Your task to perform on an android device: Search for the best selling books Image 0: 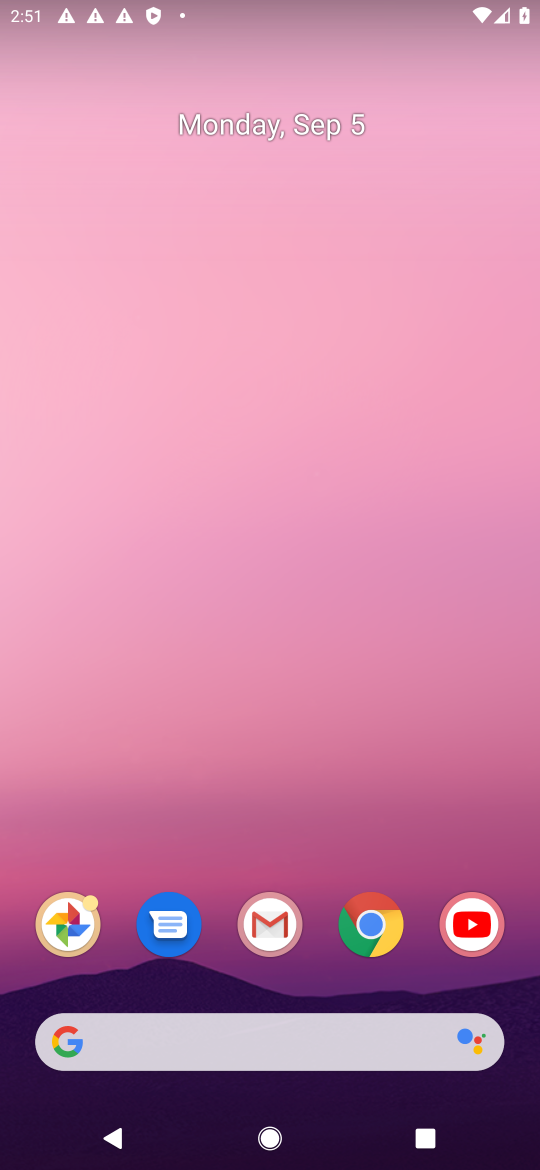
Step 0: click (491, 167)
Your task to perform on an android device: Search for the best selling books Image 1: 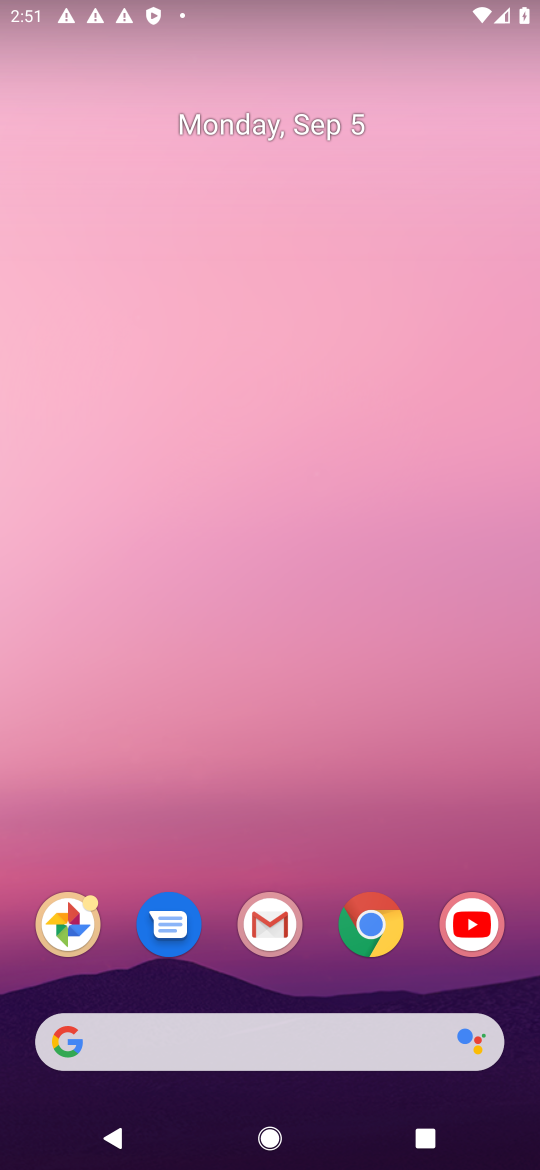
Step 1: click (366, 950)
Your task to perform on an android device: Search for the best selling books Image 2: 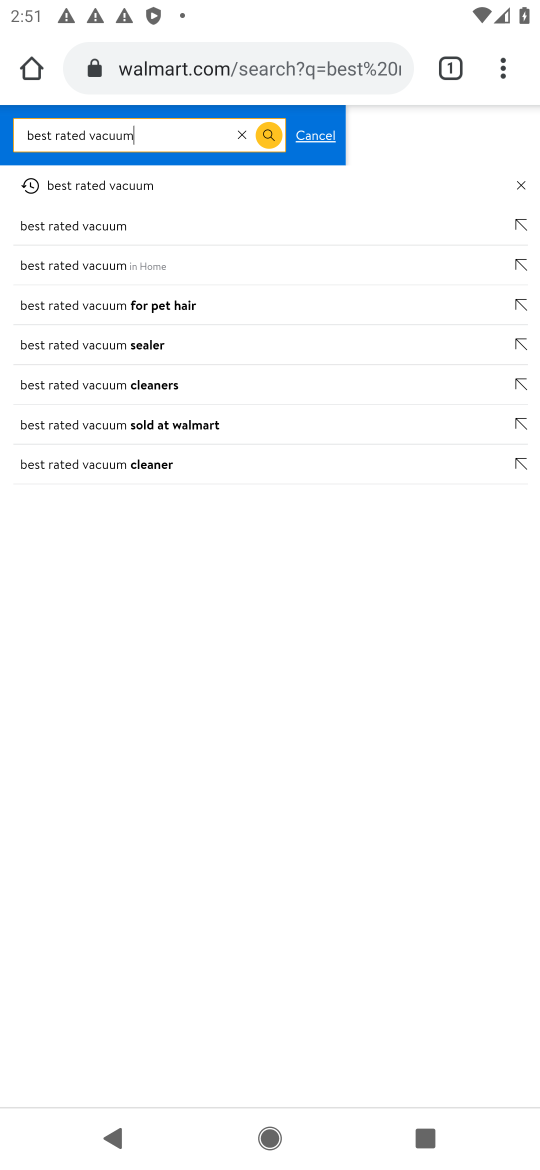
Step 2: click (247, 72)
Your task to perform on an android device: Search for the best selling books Image 3: 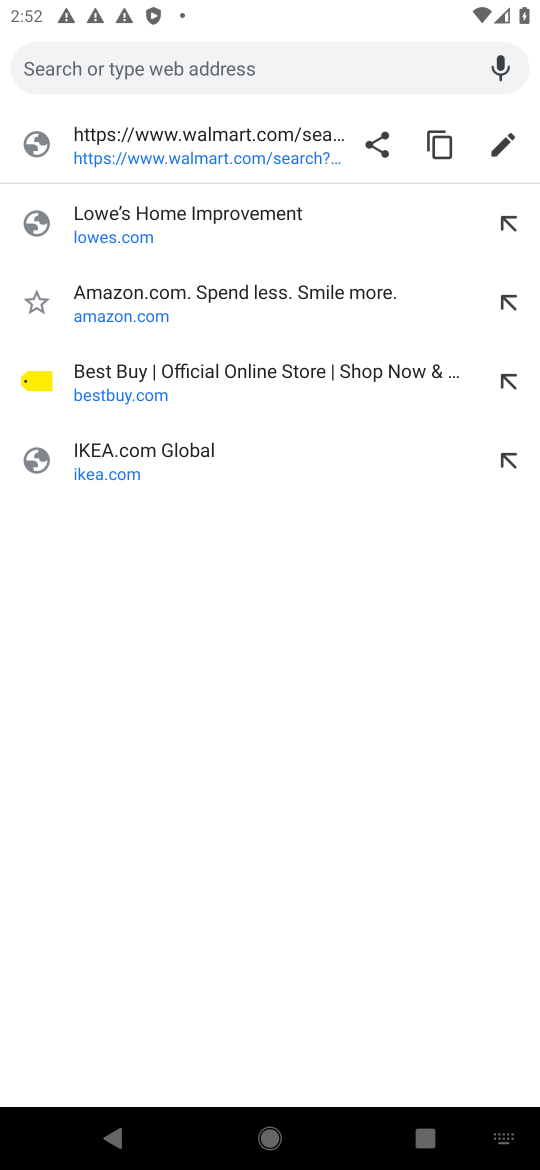
Step 3: type "best selling books"
Your task to perform on an android device: Search for the best selling books Image 4: 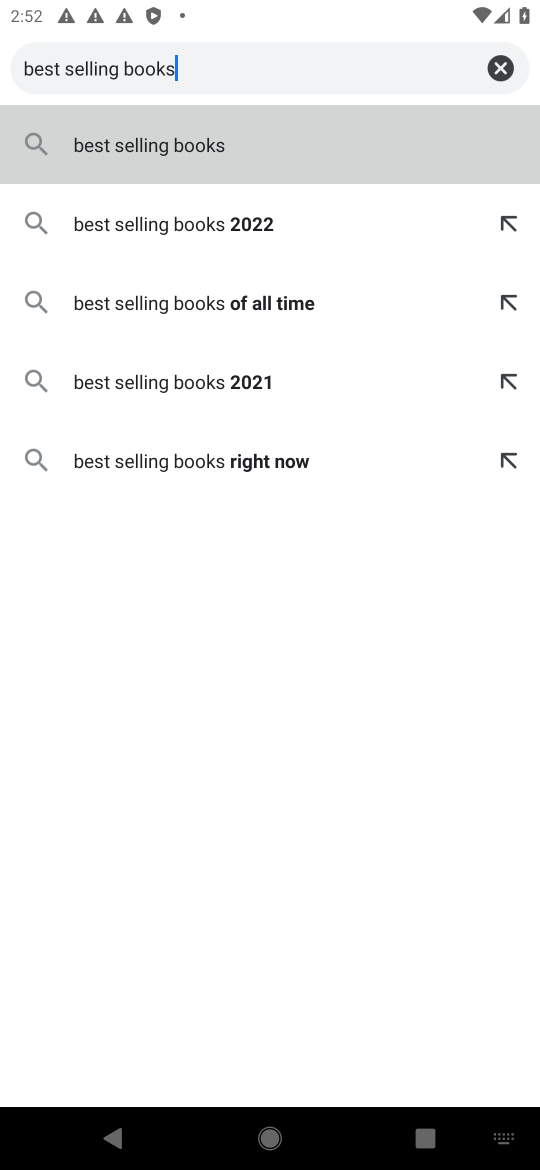
Step 4: click (328, 146)
Your task to perform on an android device: Search for the best selling books Image 5: 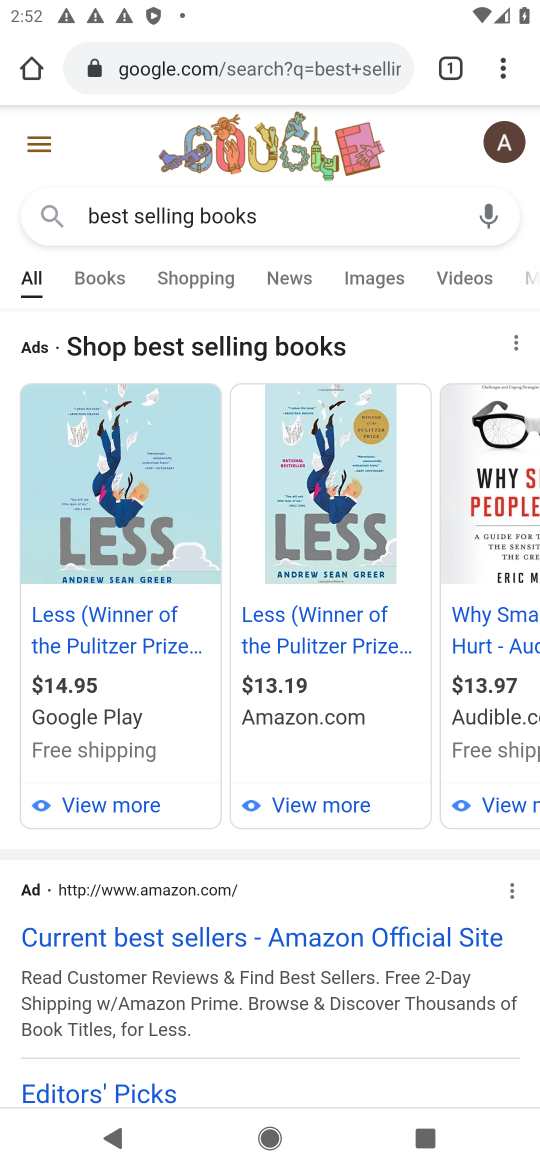
Step 5: task complete